Your task to perform on an android device: check android version Image 0: 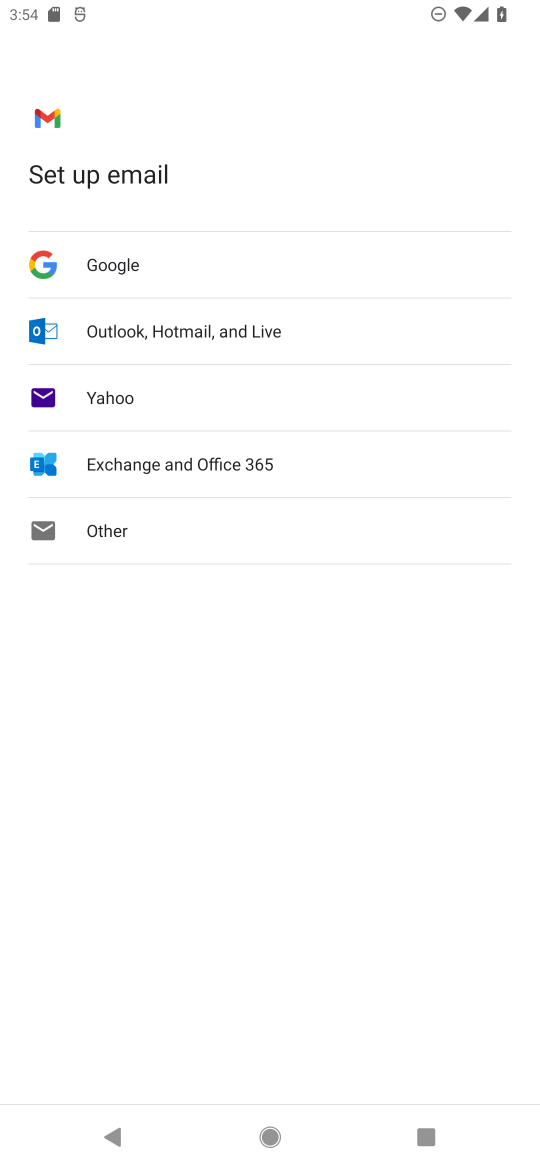
Step 0: press home button
Your task to perform on an android device: check android version Image 1: 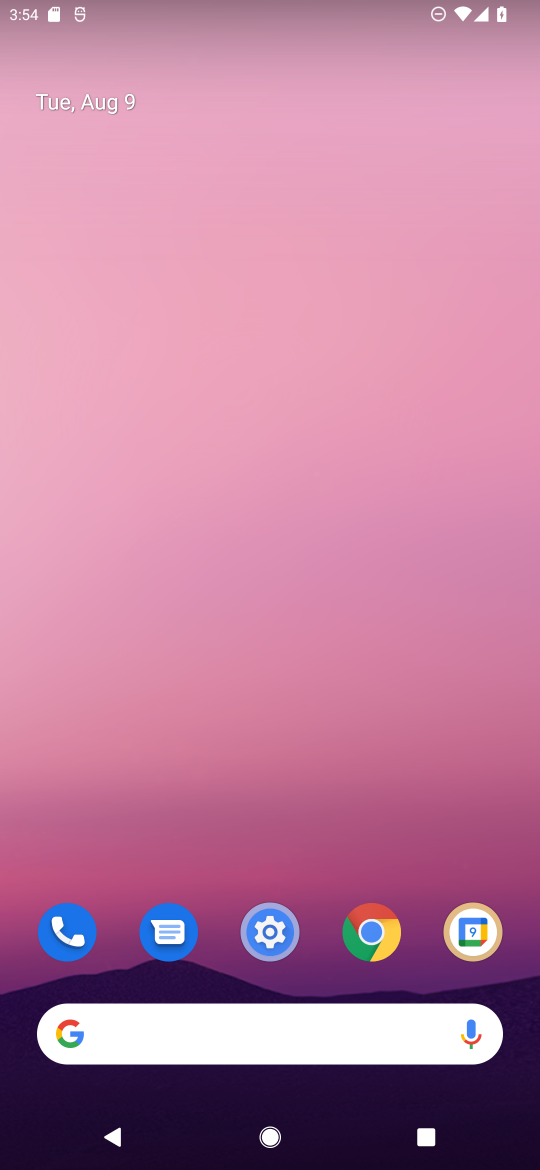
Step 1: click (265, 907)
Your task to perform on an android device: check android version Image 2: 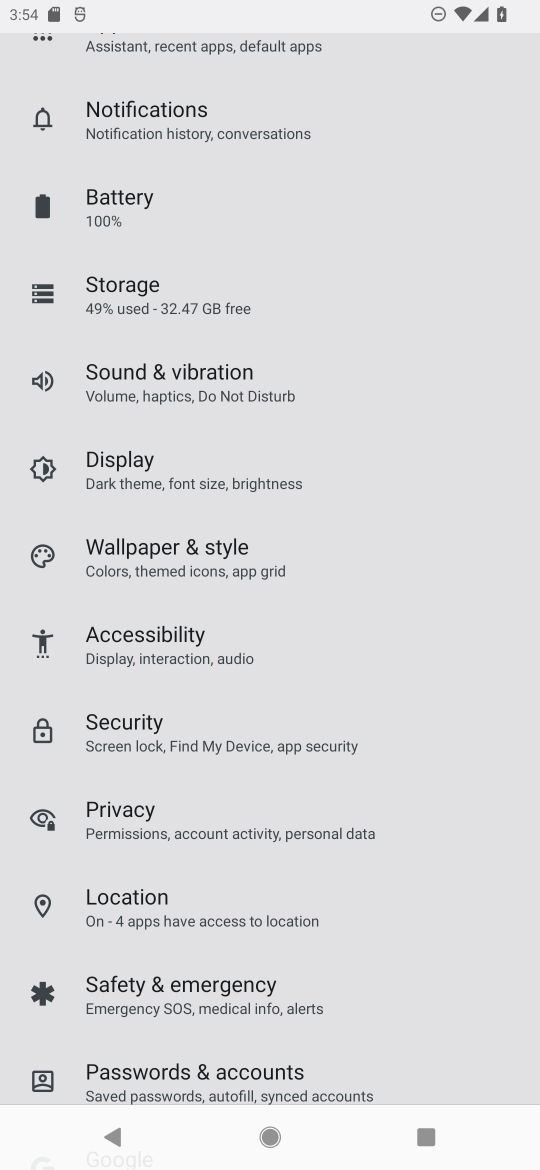
Step 2: drag from (469, 1037) to (496, 574)
Your task to perform on an android device: check android version Image 3: 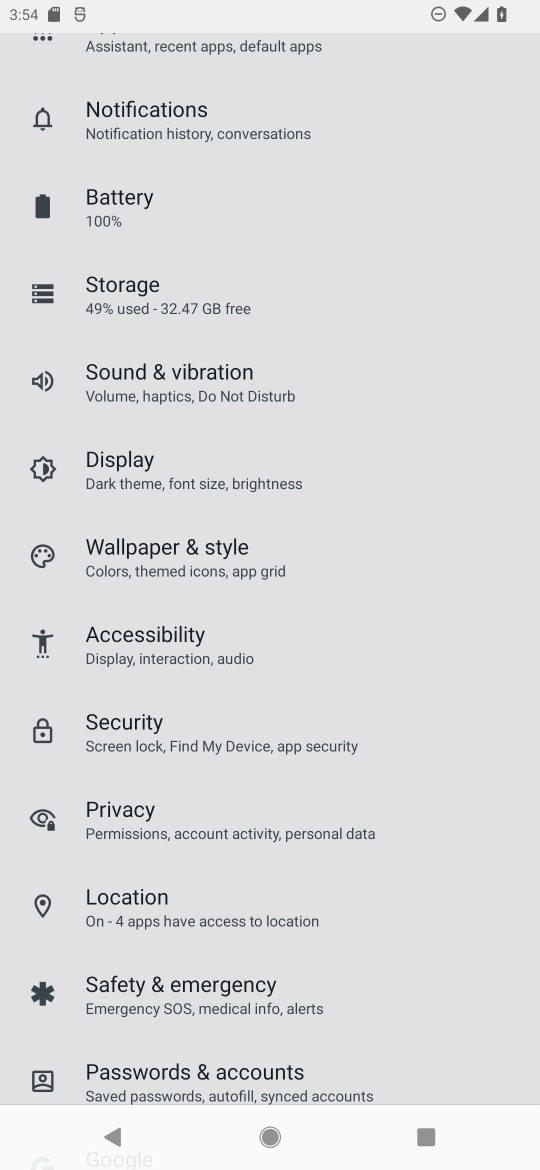
Step 3: drag from (435, 1076) to (478, 607)
Your task to perform on an android device: check android version Image 4: 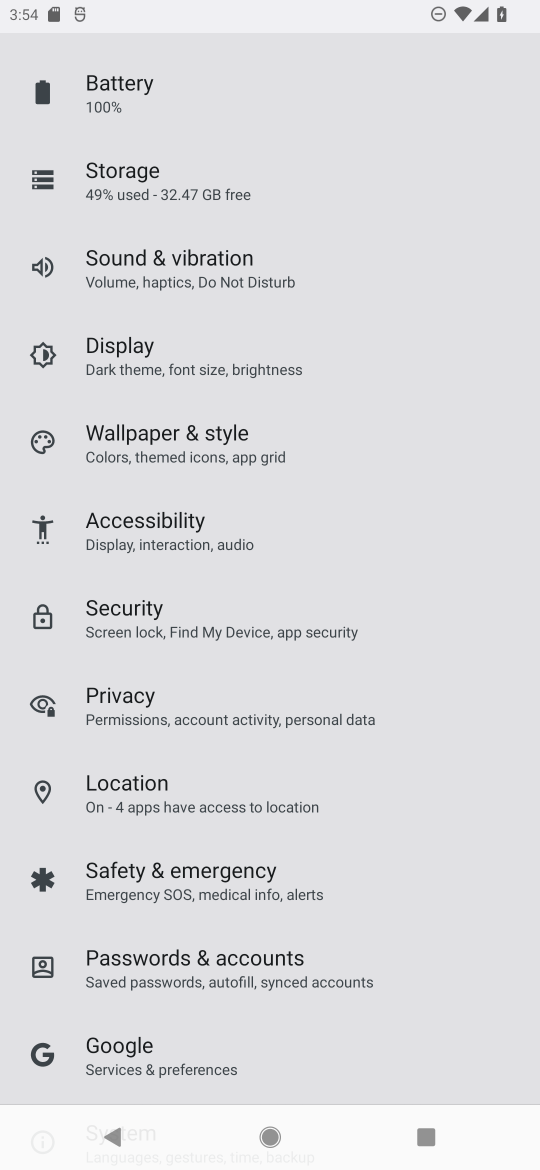
Step 4: drag from (401, 1075) to (437, 570)
Your task to perform on an android device: check android version Image 5: 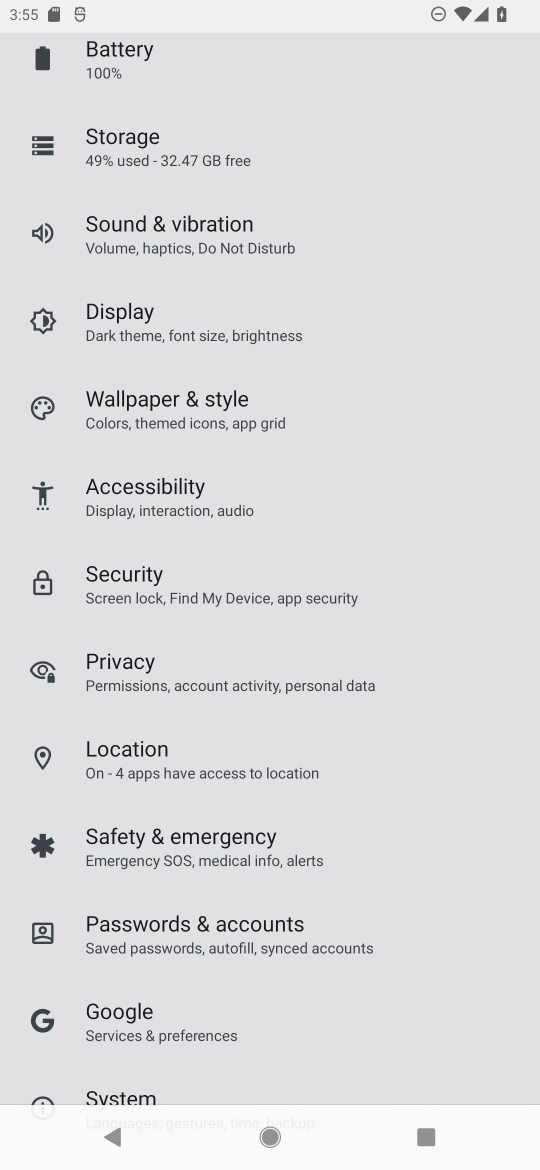
Step 5: drag from (447, 1052) to (523, 569)
Your task to perform on an android device: check android version Image 6: 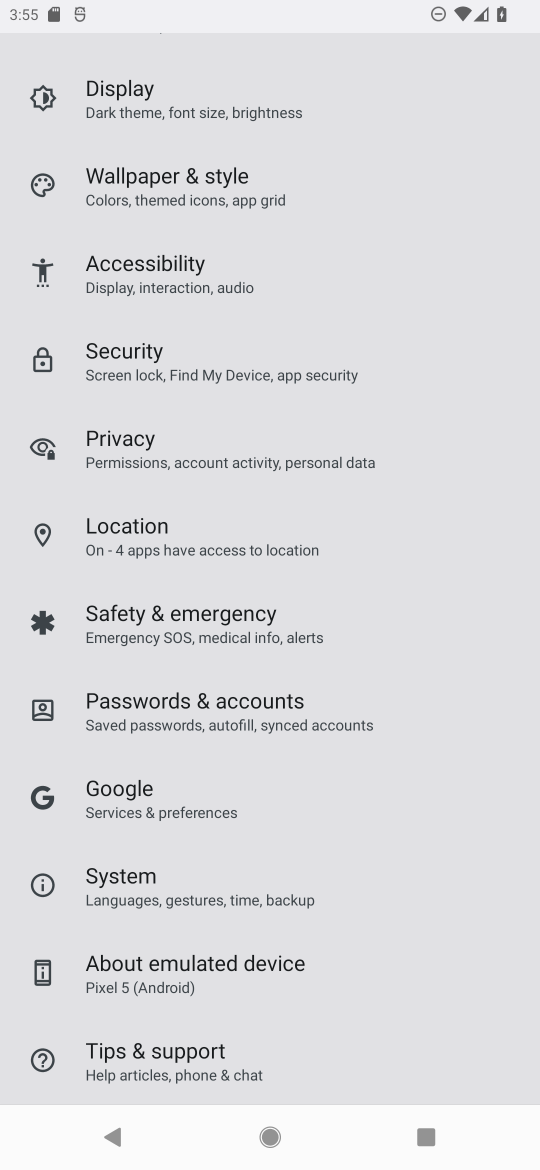
Step 6: drag from (483, 1062) to (494, 756)
Your task to perform on an android device: check android version Image 7: 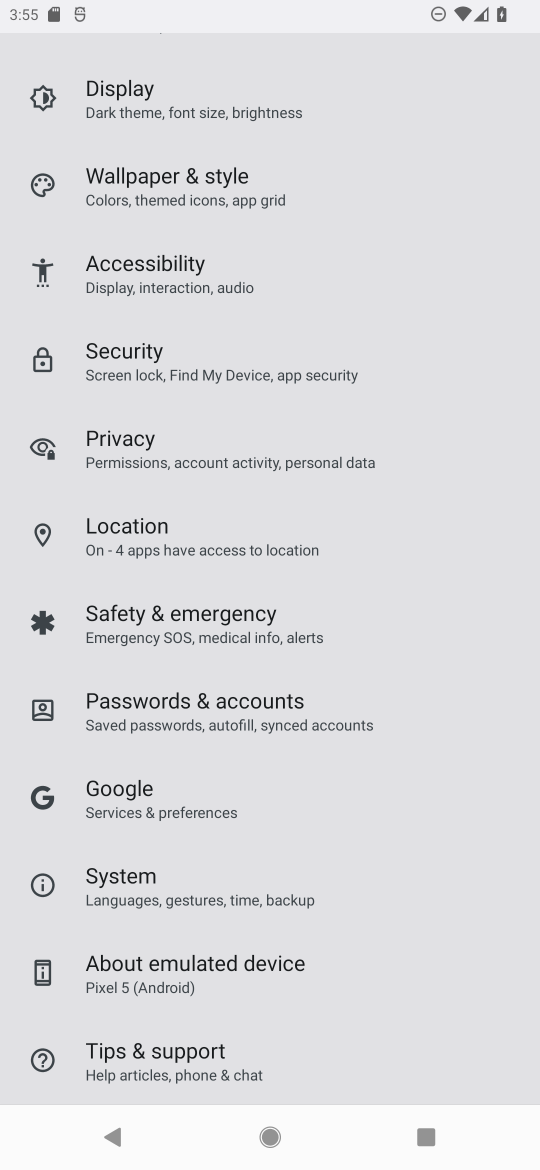
Step 7: click (208, 971)
Your task to perform on an android device: check android version Image 8: 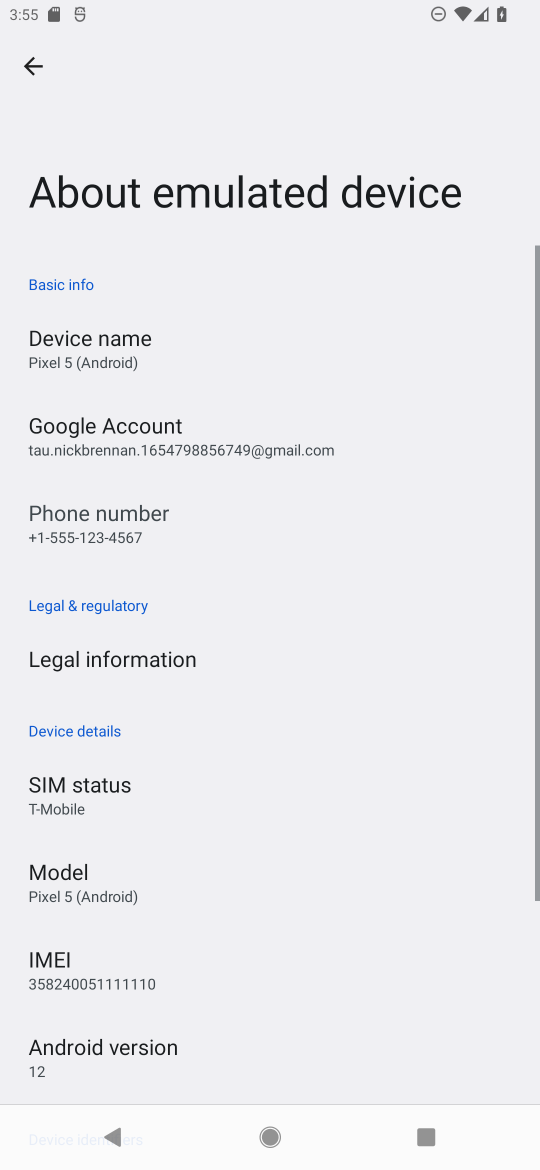
Step 8: click (130, 1043)
Your task to perform on an android device: check android version Image 9: 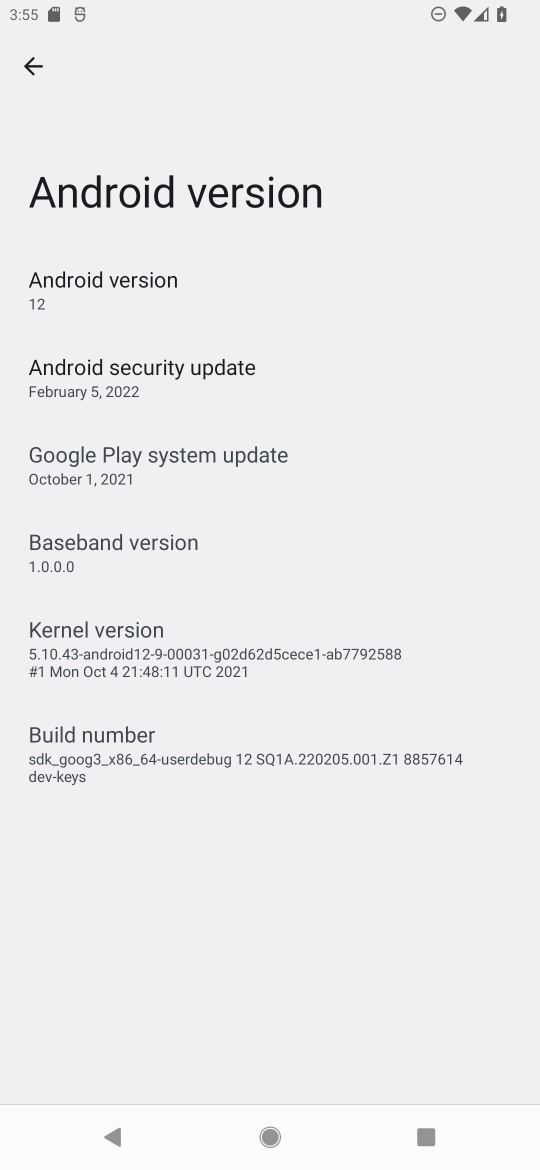
Step 9: task complete